Your task to perform on an android device: Go to Maps Image 0: 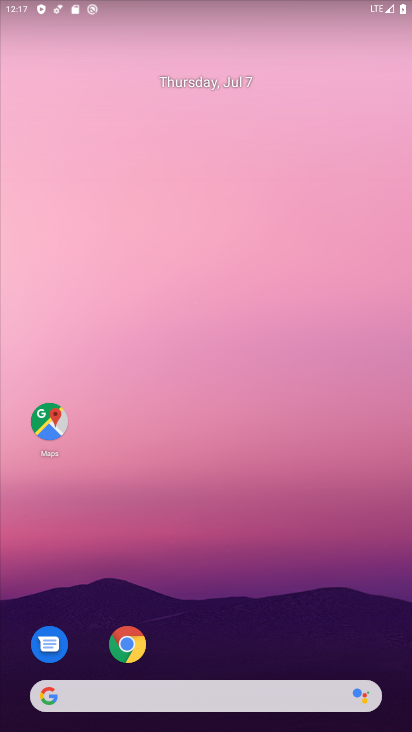
Step 0: drag from (389, 695) to (349, 220)
Your task to perform on an android device: Go to Maps Image 1: 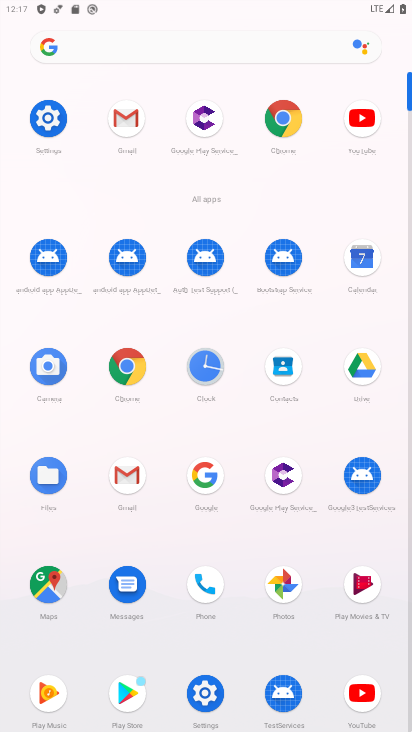
Step 1: click (51, 573)
Your task to perform on an android device: Go to Maps Image 2: 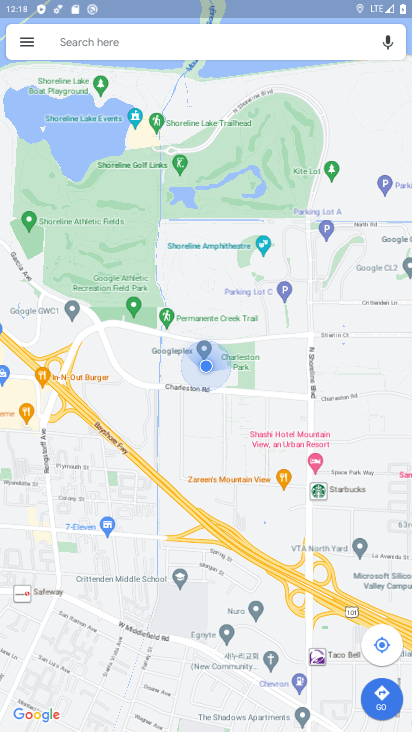
Step 2: task complete